Your task to perform on an android device: Open the map Image 0: 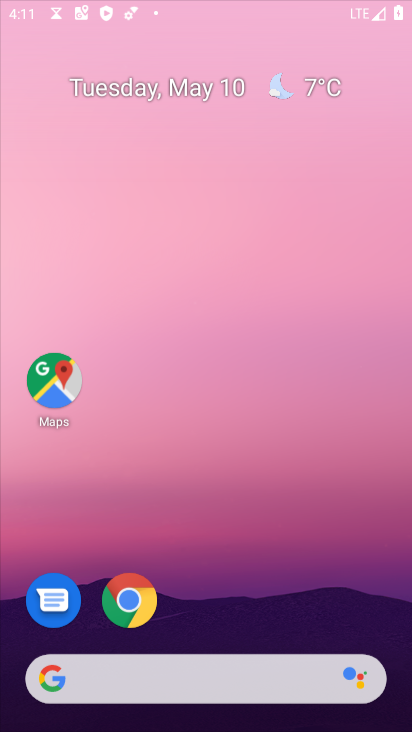
Step 0: drag from (297, 2) to (249, 67)
Your task to perform on an android device: Open the map Image 1: 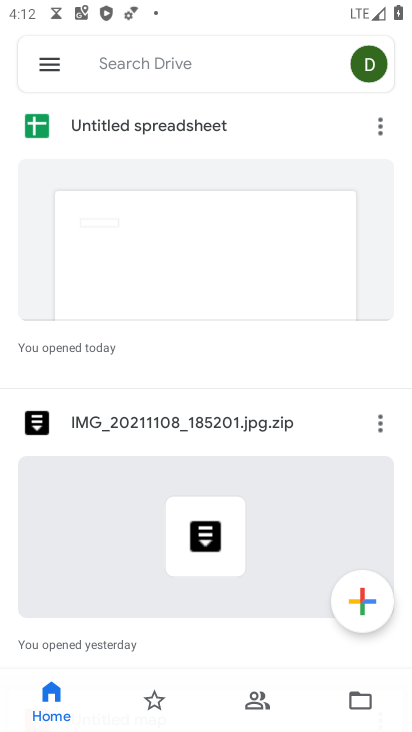
Step 1: press home button
Your task to perform on an android device: Open the map Image 2: 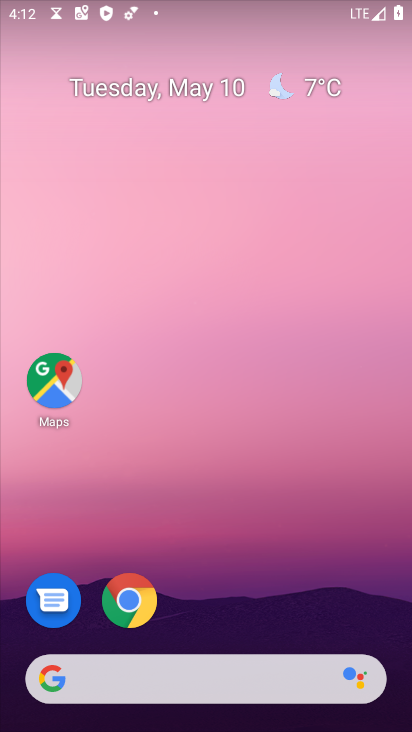
Step 2: drag from (202, 623) to (222, 103)
Your task to perform on an android device: Open the map Image 3: 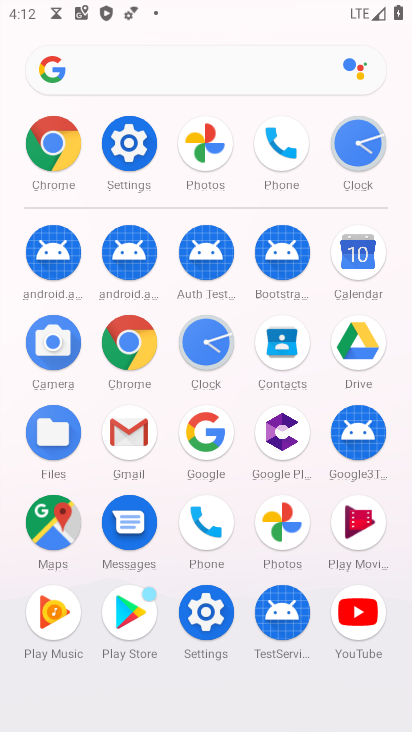
Step 3: click (50, 514)
Your task to perform on an android device: Open the map Image 4: 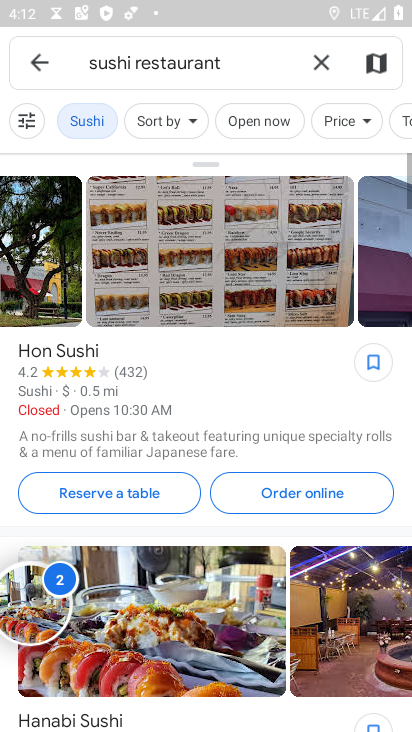
Step 4: click (44, 55)
Your task to perform on an android device: Open the map Image 5: 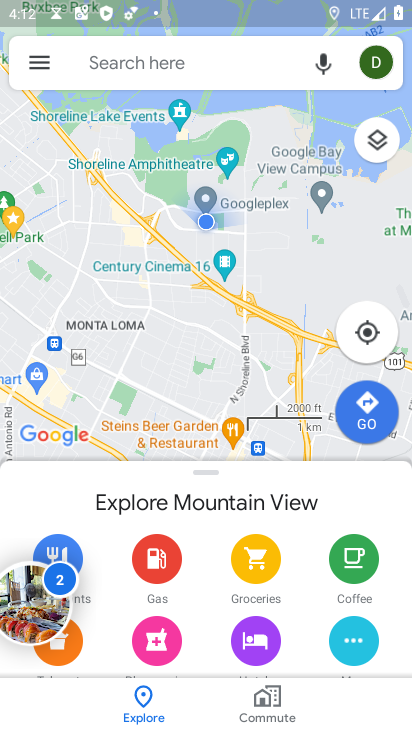
Step 5: task complete